Your task to perform on an android device: Go to battery settings Image 0: 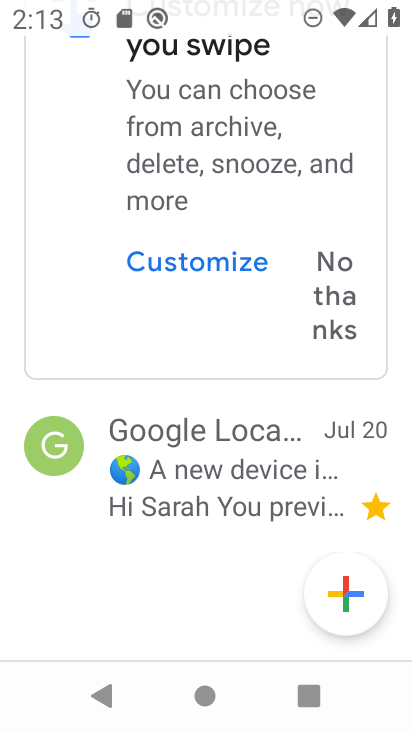
Step 0: press home button
Your task to perform on an android device: Go to battery settings Image 1: 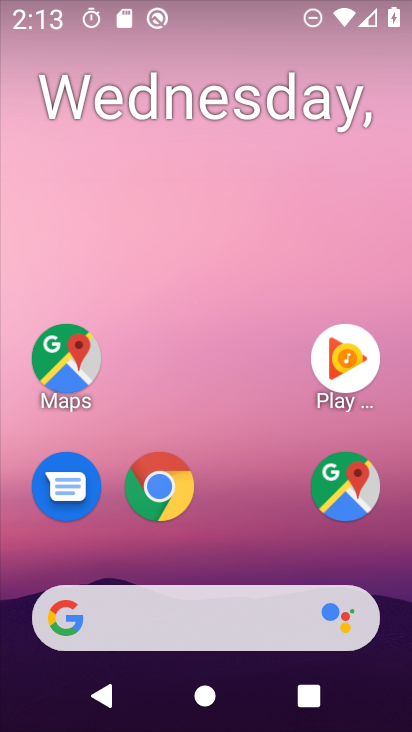
Step 1: drag from (265, 549) to (262, 263)
Your task to perform on an android device: Go to battery settings Image 2: 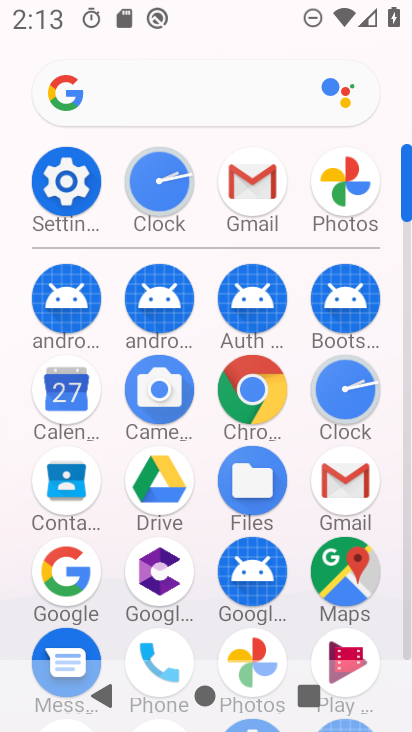
Step 2: click (66, 186)
Your task to perform on an android device: Go to battery settings Image 3: 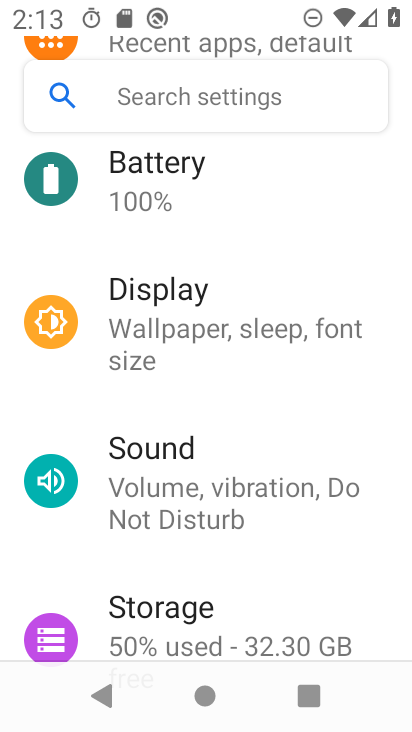
Step 3: drag from (344, 518) to (341, 411)
Your task to perform on an android device: Go to battery settings Image 4: 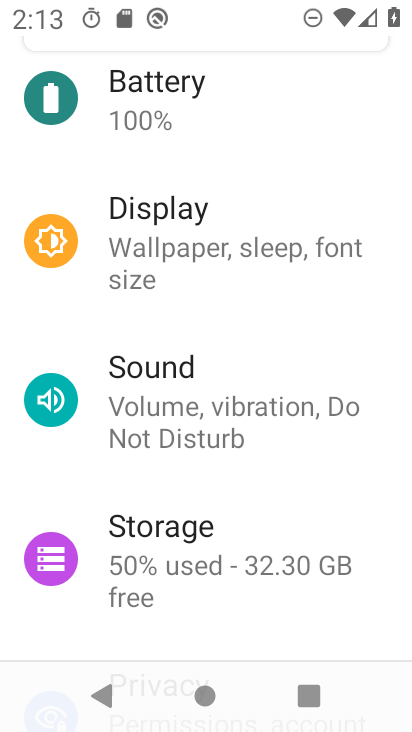
Step 4: drag from (344, 504) to (333, 401)
Your task to perform on an android device: Go to battery settings Image 5: 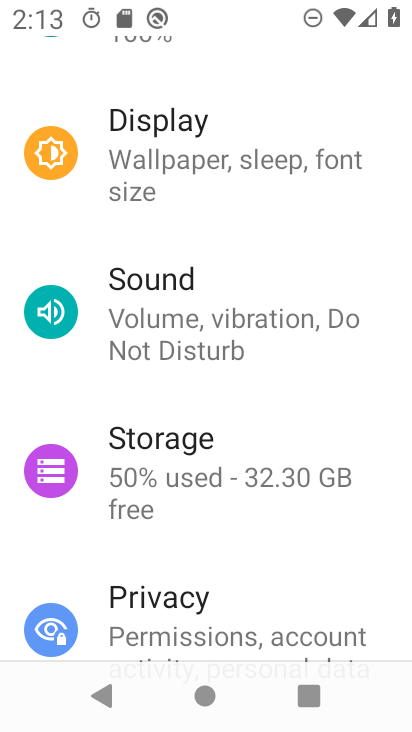
Step 5: drag from (349, 539) to (340, 432)
Your task to perform on an android device: Go to battery settings Image 6: 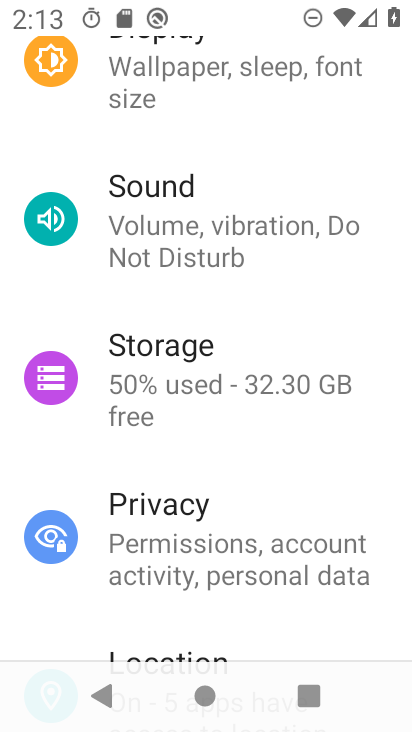
Step 6: drag from (342, 510) to (329, 410)
Your task to perform on an android device: Go to battery settings Image 7: 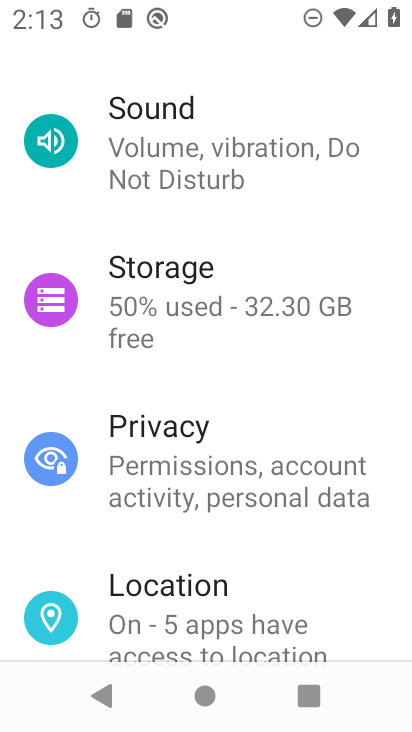
Step 7: drag from (318, 549) to (314, 441)
Your task to perform on an android device: Go to battery settings Image 8: 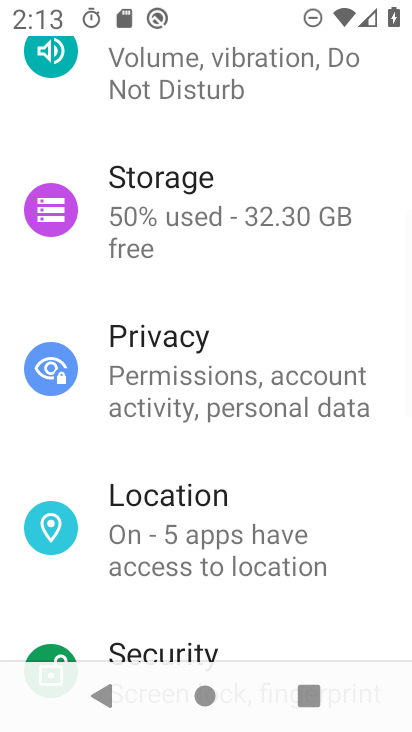
Step 8: drag from (335, 533) to (331, 461)
Your task to perform on an android device: Go to battery settings Image 9: 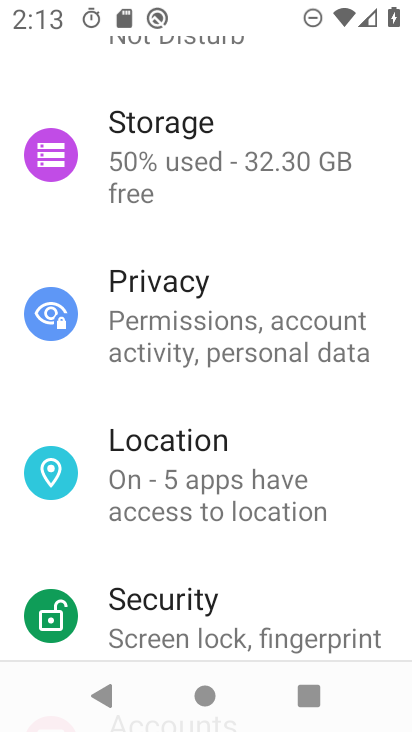
Step 9: drag from (342, 557) to (342, 453)
Your task to perform on an android device: Go to battery settings Image 10: 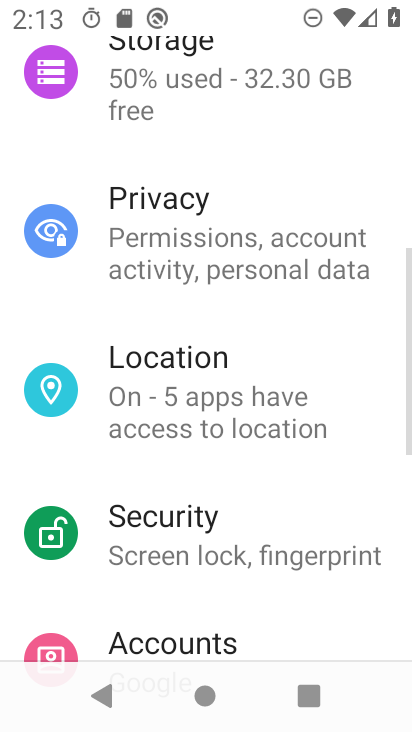
Step 10: drag from (331, 551) to (331, 443)
Your task to perform on an android device: Go to battery settings Image 11: 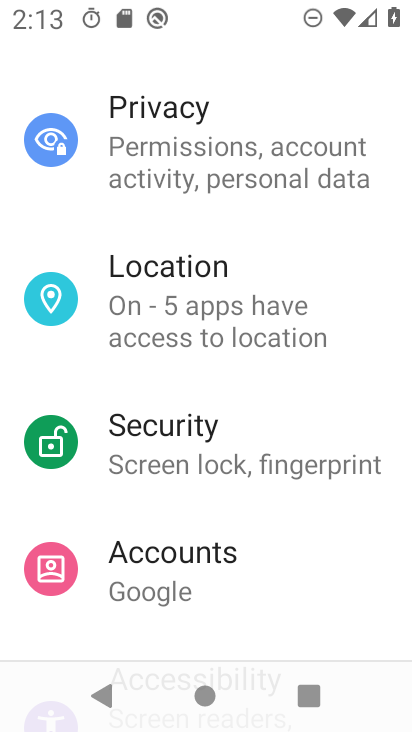
Step 11: drag from (341, 574) to (332, 470)
Your task to perform on an android device: Go to battery settings Image 12: 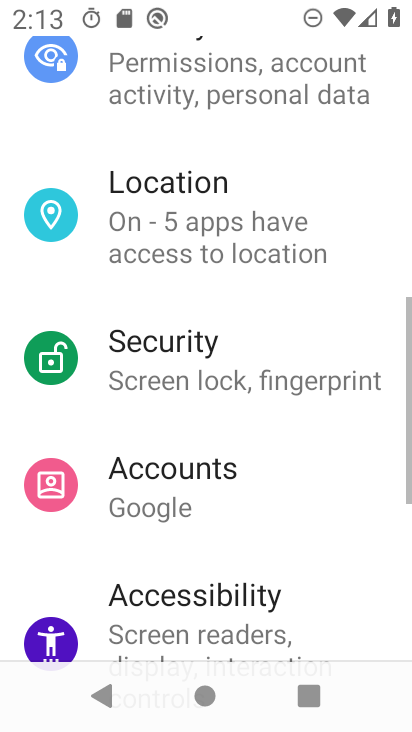
Step 12: drag from (346, 545) to (335, 453)
Your task to perform on an android device: Go to battery settings Image 13: 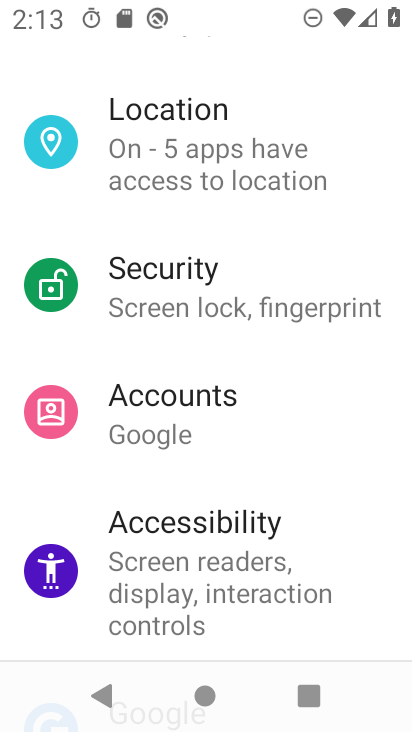
Step 13: drag from (336, 575) to (330, 457)
Your task to perform on an android device: Go to battery settings Image 14: 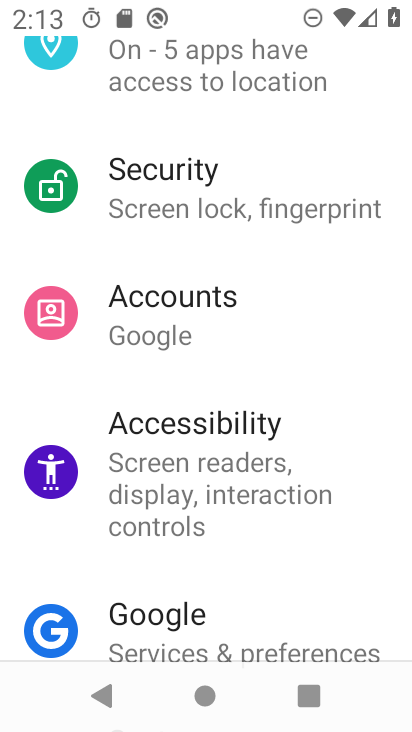
Step 14: drag from (333, 576) to (329, 449)
Your task to perform on an android device: Go to battery settings Image 15: 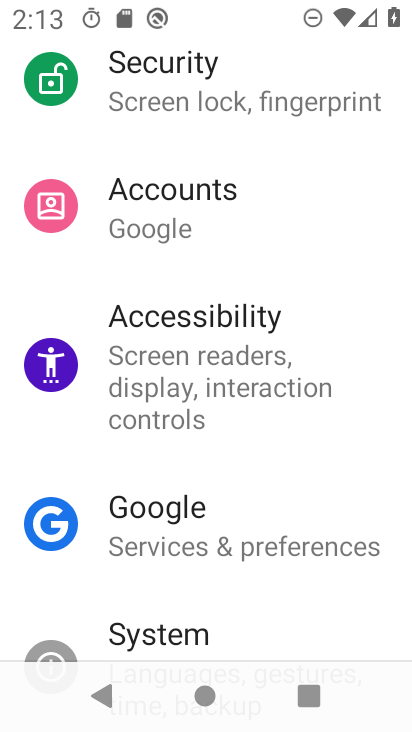
Step 15: drag from (332, 557) to (333, 451)
Your task to perform on an android device: Go to battery settings Image 16: 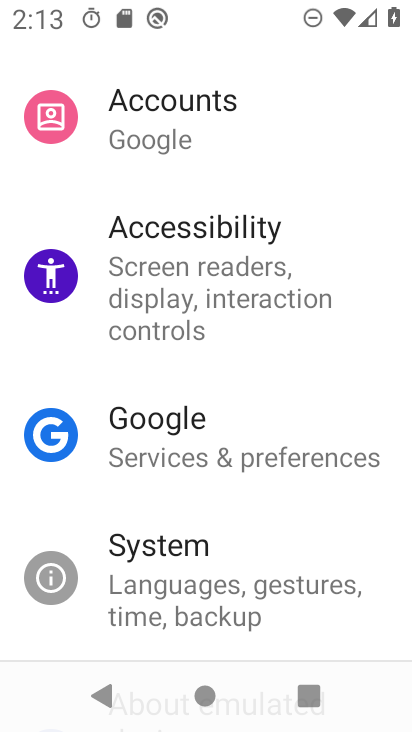
Step 16: drag from (334, 542) to (356, 488)
Your task to perform on an android device: Go to battery settings Image 17: 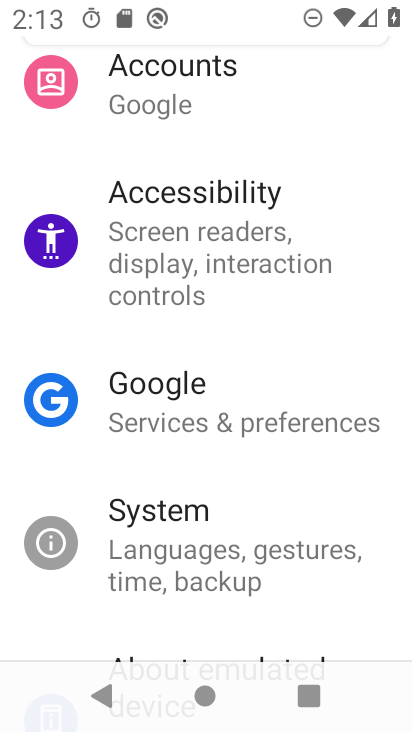
Step 17: drag from (341, 318) to (357, 427)
Your task to perform on an android device: Go to battery settings Image 18: 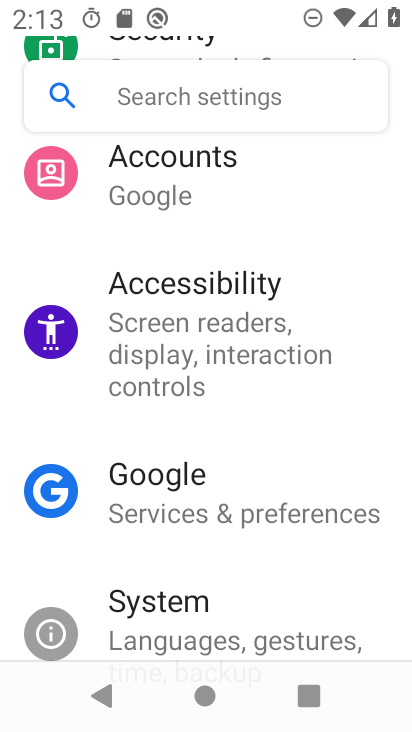
Step 18: drag from (357, 275) to (357, 390)
Your task to perform on an android device: Go to battery settings Image 19: 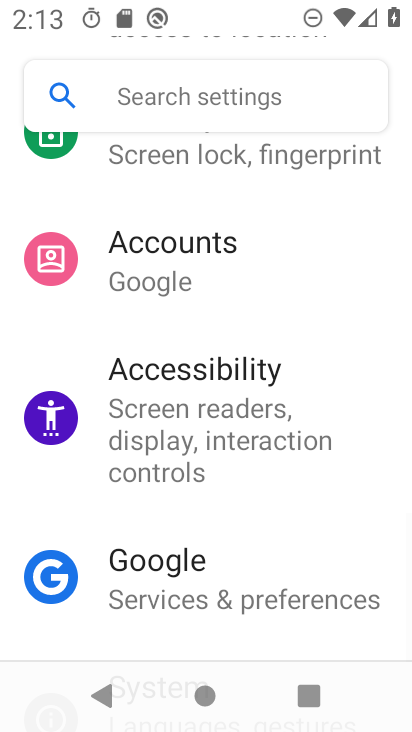
Step 19: drag from (358, 243) to (368, 378)
Your task to perform on an android device: Go to battery settings Image 20: 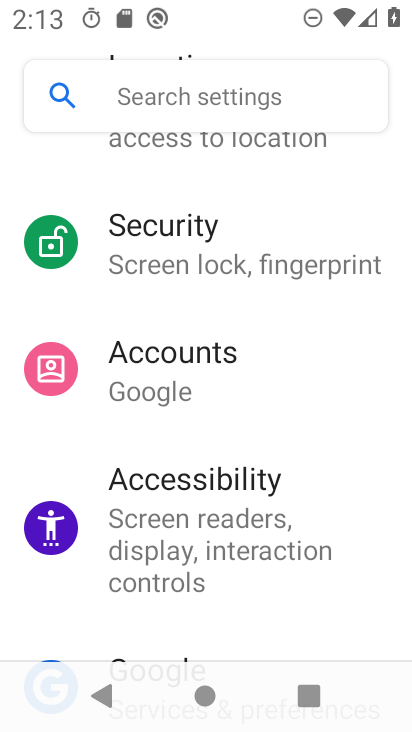
Step 20: drag from (366, 212) to (365, 341)
Your task to perform on an android device: Go to battery settings Image 21: 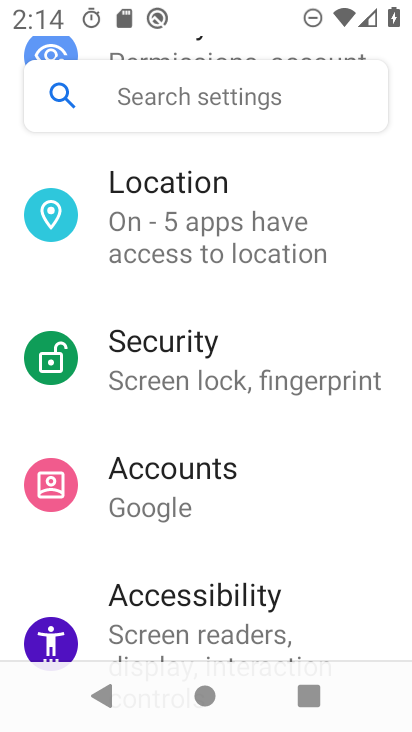
Step 21: drag from (366, 186) to (355, 331)
Your task to perform on an android device: Go to battery settings Image 22: 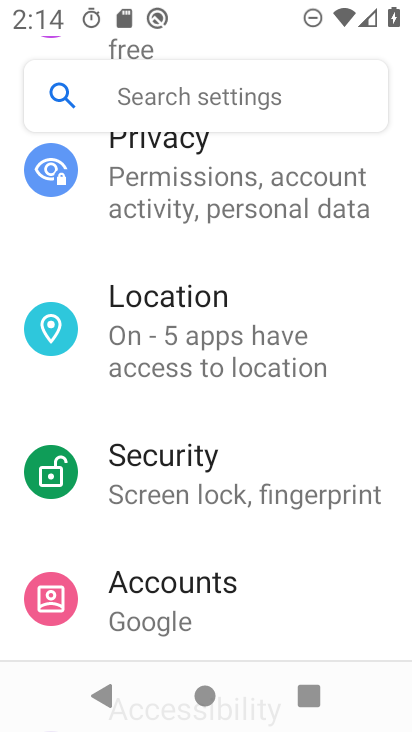
Step 22: drag from (372, 162) to (378, 340)
Your task to perform on an android device: Go to battery settings Image 23: 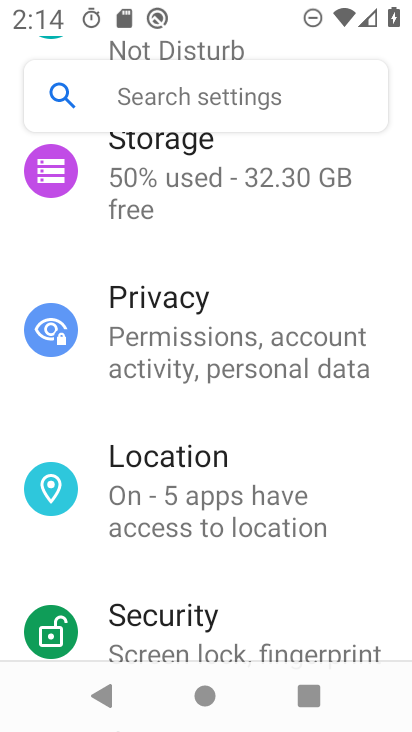
Step 23: drag from (379, 162) to (363, 333)
Your task to perform on an android device: Go to battery settings Image 24: 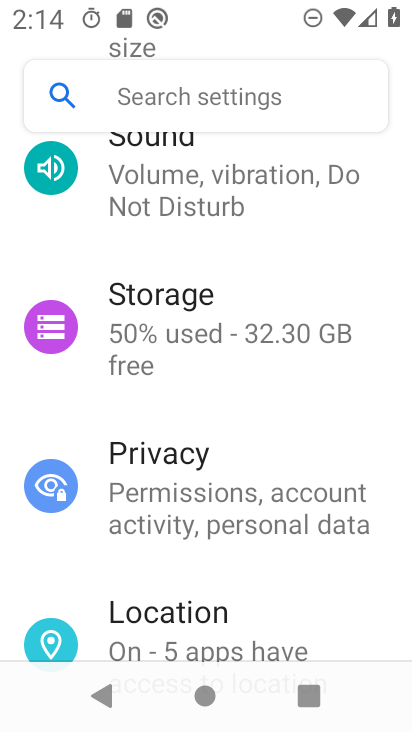
Step 24: drag from (352, 215) to (358, 368)
Your task to perform on an android device: Go to battery settings Image 25: 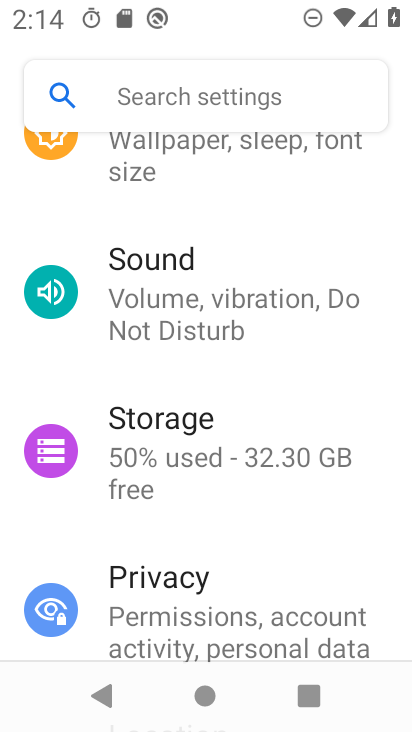
Step 25: drag from (363, 183) to (351, 365)
Your task to perform on an android device: Go to battery settings Image 26: 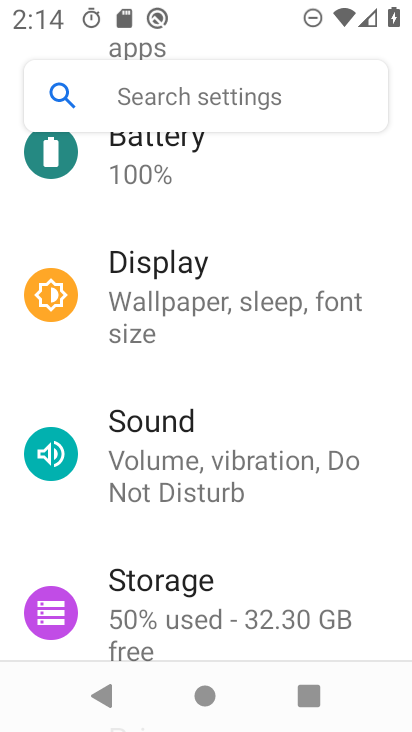
Step 26: drag from (350, 164) to (349, 369)
Your task to perform on an android device: Go to battery settings Image 27: 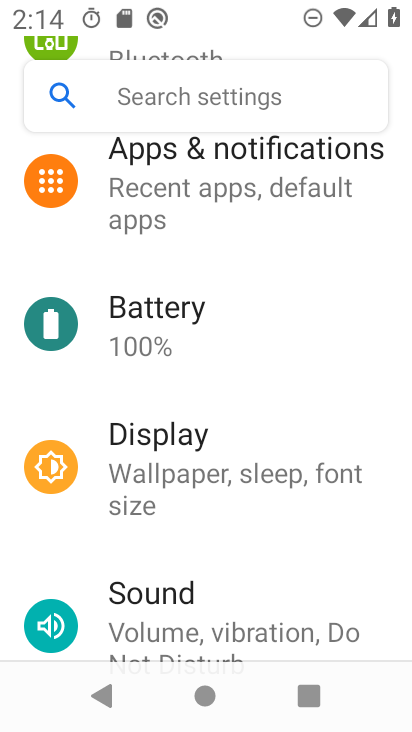
Step 27: click (263, 325)
Your task to perform on an android device: Go to battery settings Image 28: 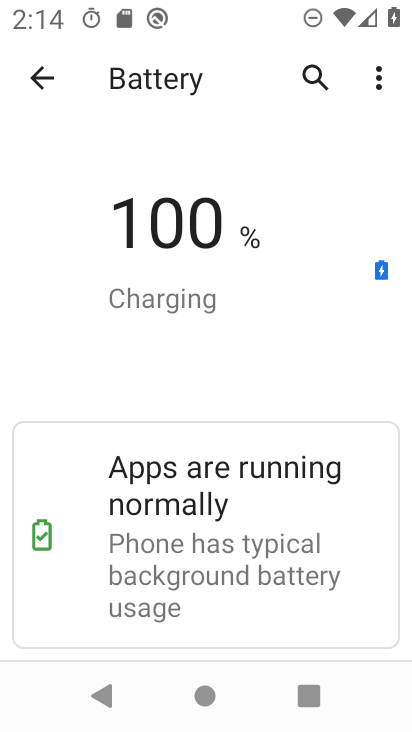
Step 28: task complete